Your task to perform on an android device: Open accessibility settings Image 0: 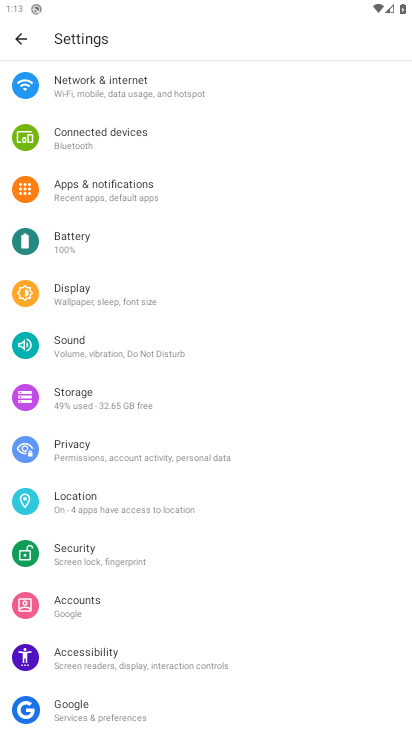
Step 0: click (87, 657)
Your task to perform on an android device: Open accessibility settings Image 1: 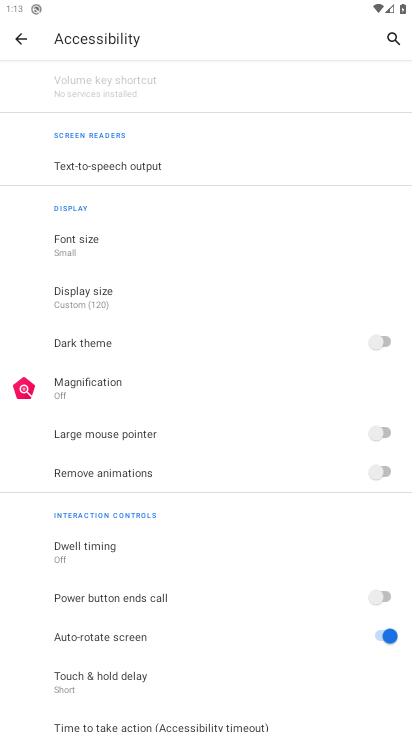
Step 1: task complete